Your task to perform on an android device: turn off notifications settings in the gmail app Image 0: 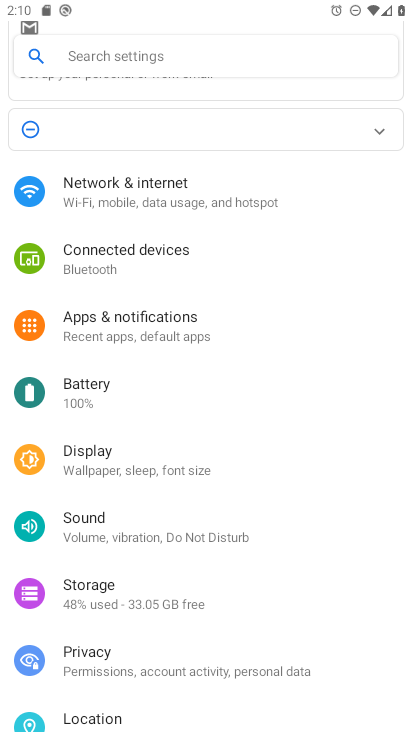
Step 0: press home button
Your task to perform on an android device: turn off notifications settings in the gmail app Image 1: 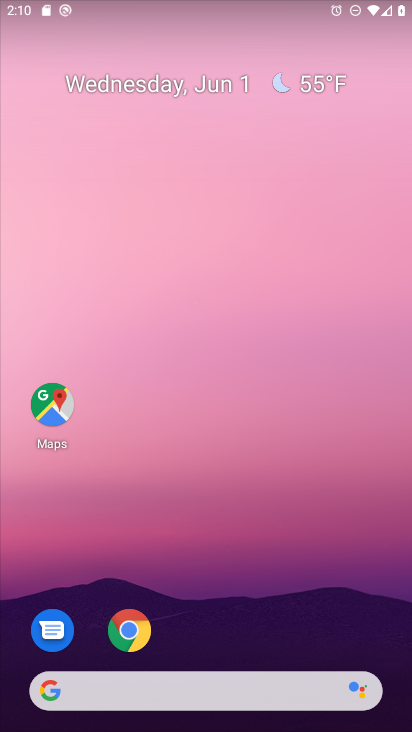
Step 1: drag from (325, 660) to (257, 63)
Your task to perform on an android device: turn off notifications settings in the gmail app Image 2: 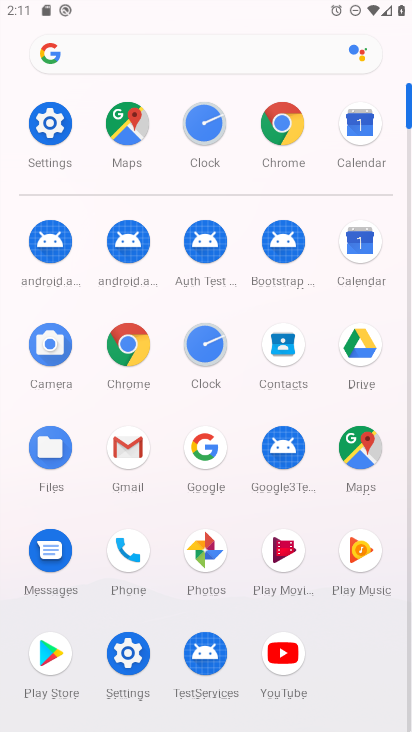
Step 2: click (133, 463)
Your task to perform on an android device: turn off notifications settings in the gmail app Image 3: 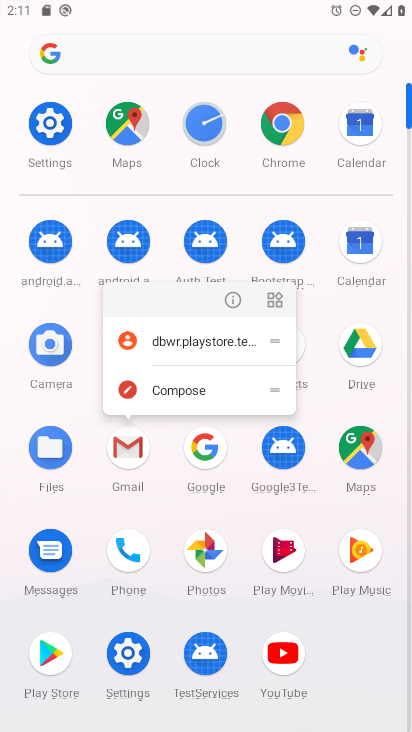
Step 3: click (133, 463)
Your task to perform on an android device: turn off notifications settings in the gmail app Image 4: 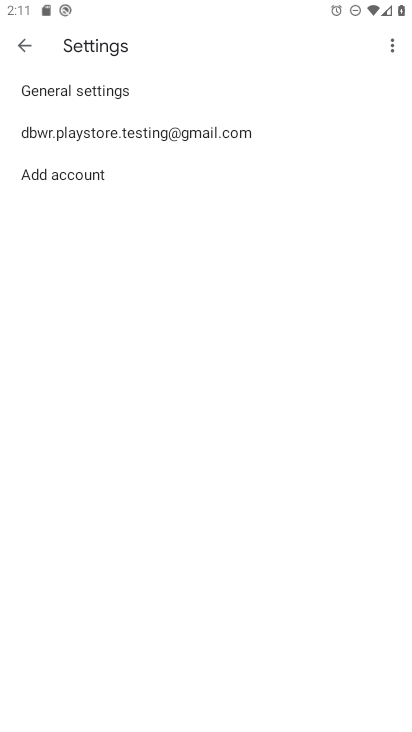
Step 4: press back button
Your task to perform on an android device: turn off notifications settings in the gmail app Image 5: 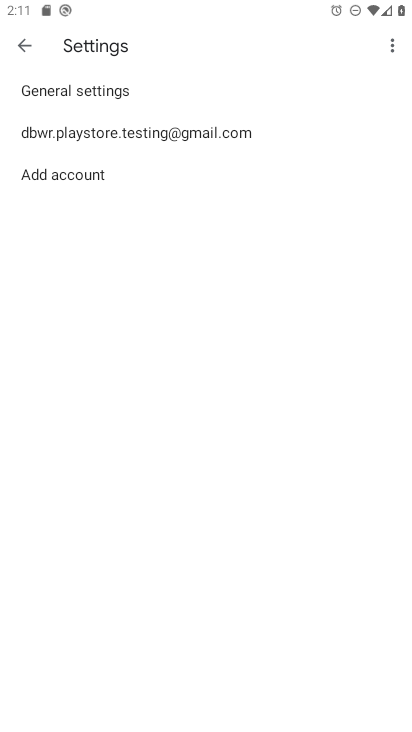
Step 5: click (201, 135)
Your task to perform on an android device: turn off notifications settings in the gmail app Image 6: 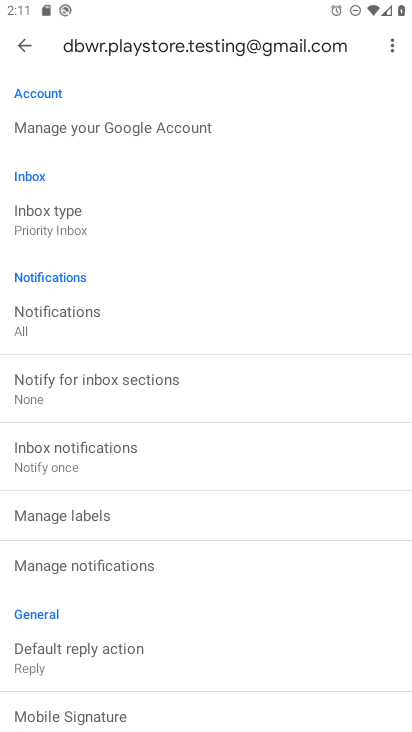
Step 6: click (185, 569)
Your task to perform on an android device: turn off notifications settings in the gmail app Image 7: 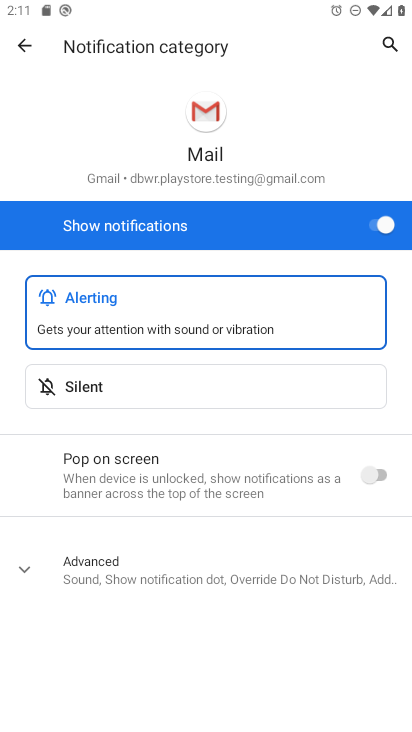
Step 7: click (367, 224)
Your task to perform on an android device: turn off notifications settings in the gmail app Image 8: 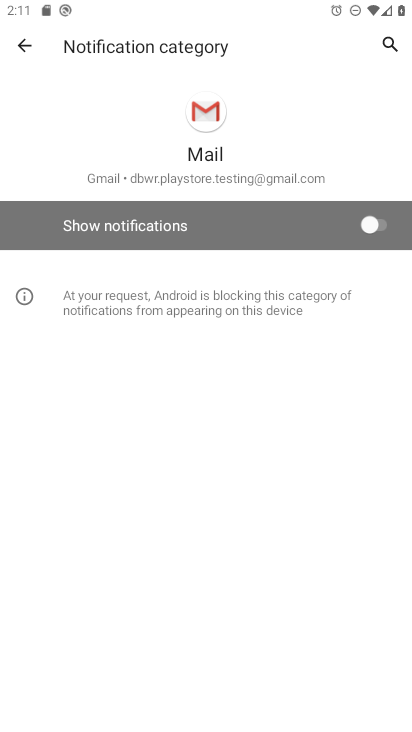
Step 8: task complete